Your task to perform on an android device: turn off airplane mode Image 0: 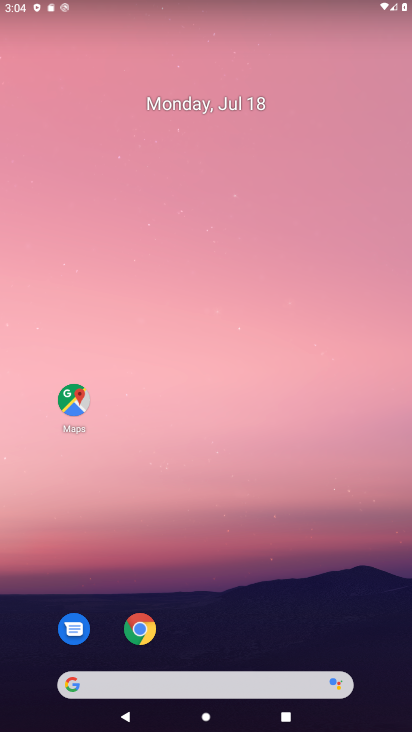
Step 0: drag from (243, 658) to (273, 0)
Your task to perform on an android device: turn off airplane mode Image 1: 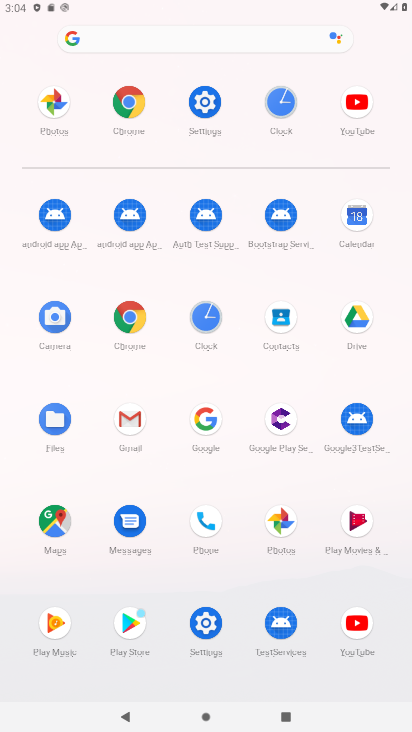
Step 1: click (212, 630)
Your task to perform on an android device: turn off airplane mode Image 2: 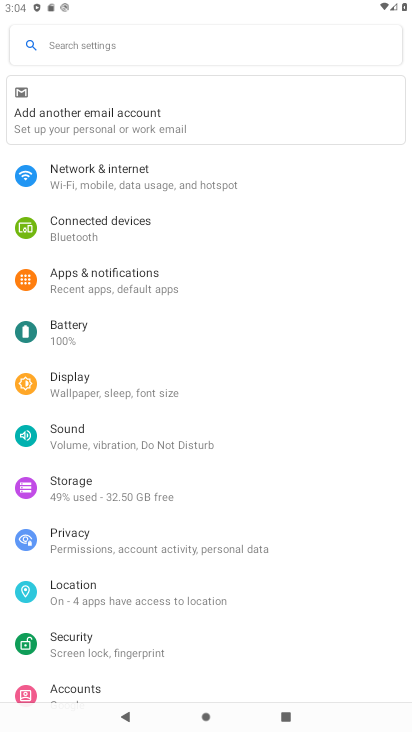
Step 2: click (113, 127)
Your task to perform on an android device: turn off airplane mode Image 3: 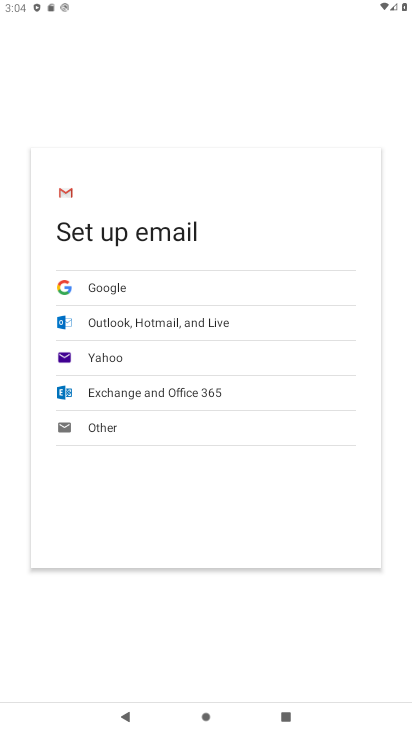
Step 3: press home button
Your task to perform on an android device: turn off airplane mode Image 4: 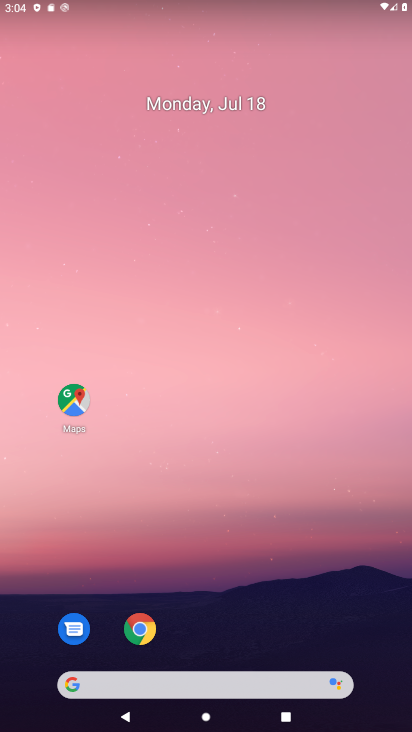
Step 4: drag from (231, 342) to (235, 29)
Your task to perform on an android device: turn off airplane mode Image 5: 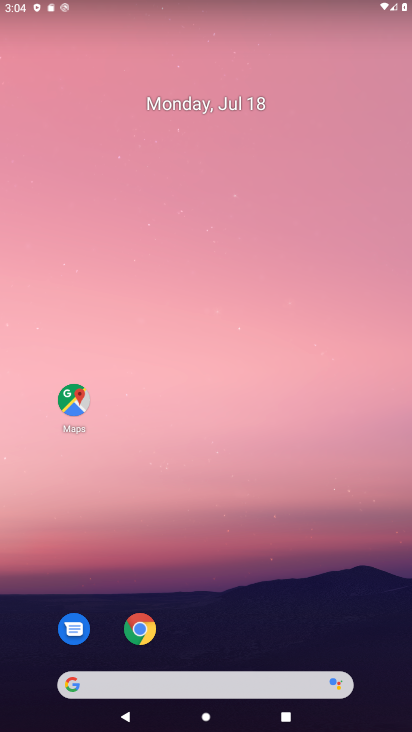
Step 5: drag from (285, 425) to (226, 1)
Your task to perform on an android device: turn off airplane mode Image 6: 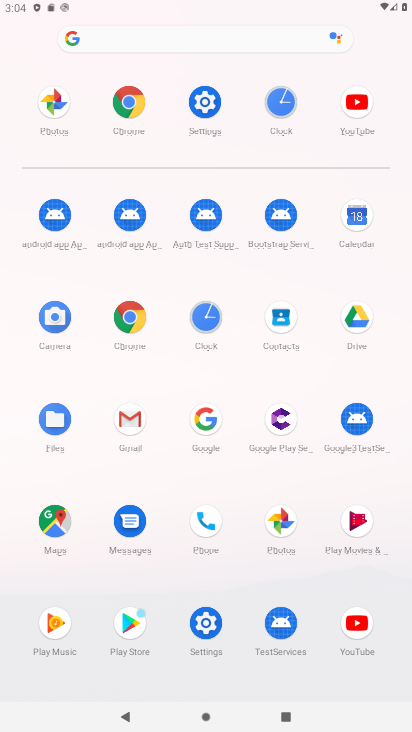
Step 6: click (205, 107)
Your task to perform on an android device: turn off airplane mode Image 7: 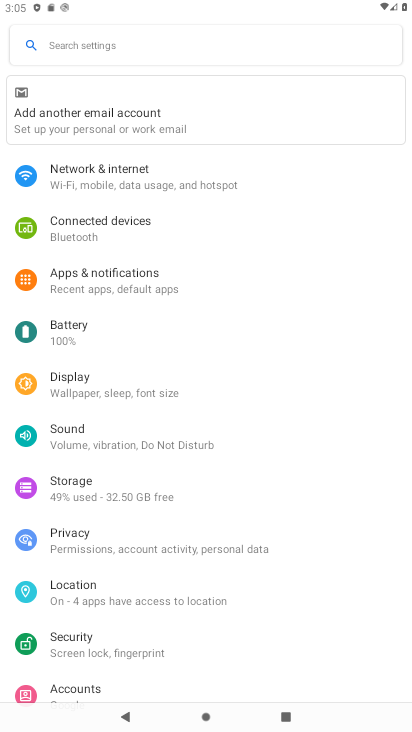
Step 7: click (129, 171)
Your task to perform on an android device: turn off airplane mode Image 8: 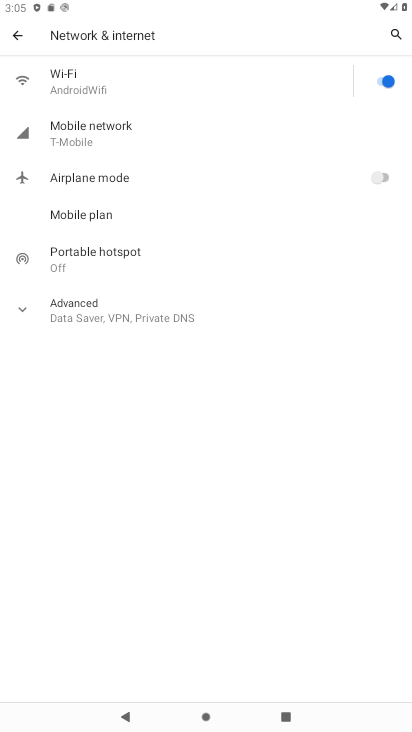
Step 8: task complete